Your task to perform on an android device: What's the weather going to be this weekend? Image 0: 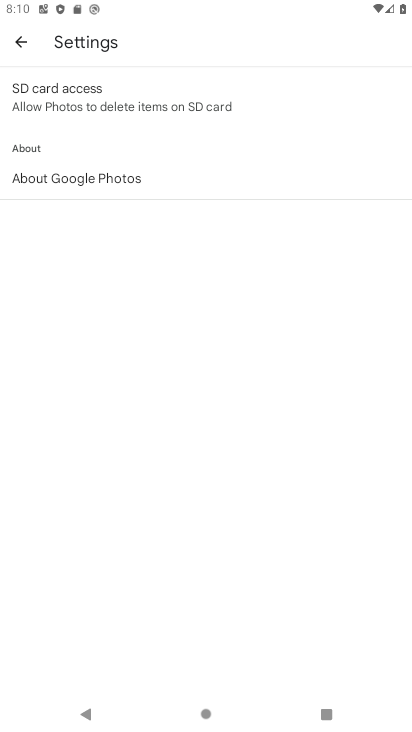
Step 0: press home button
Your task to perform on an android device: What's the weather going to be this weekend? Image 1: 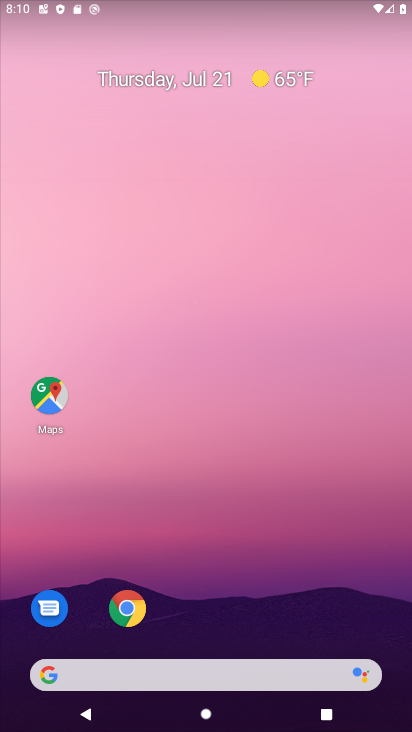
Step 1: drag from (184, 676) to (154, 184)
Your task to perform on an android device: What's the weather going to be this weekend? Image 2: 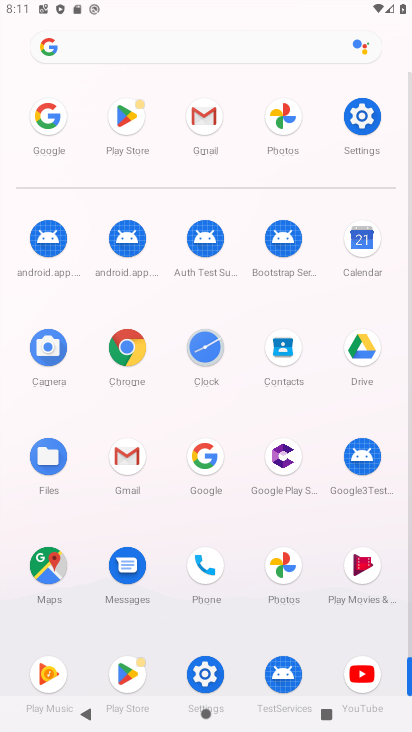
Step 2: click (205, 457)
Your task to perform on an android device: What's the weather going to be this weekend? Image 3: 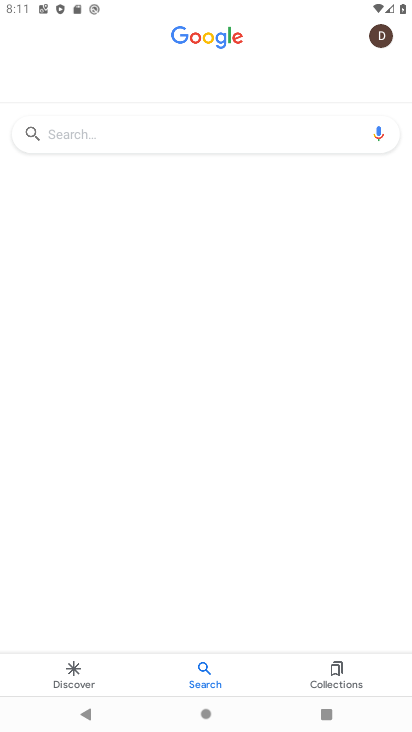
Step 3: click (153, 139)
Your task to perform on an android device: What's the weather going to be this weekend? Image 4: 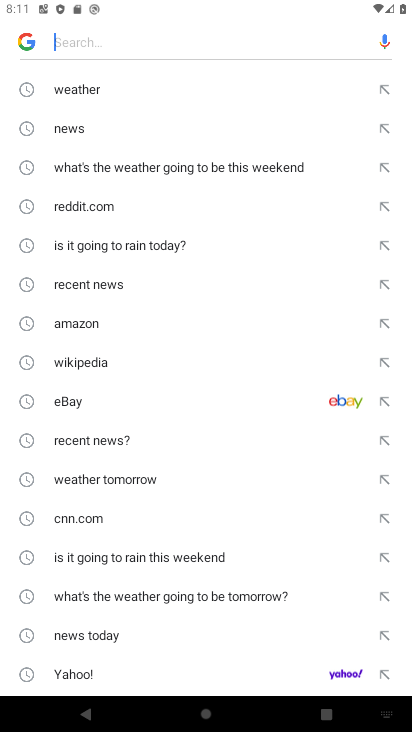
Step 4: click (249, 165)
Your task to perform on an android device: What's the weather going to be this weekend? Image 5: 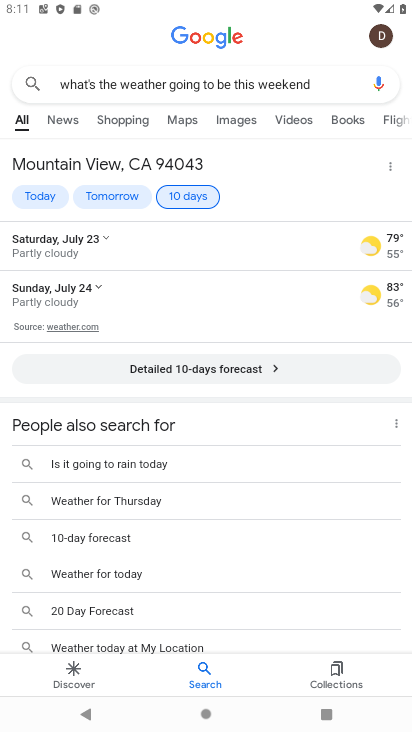
Step 5: task complete